Your task to perform on an android device: turn on showing notifications on the lock screen Image 0: 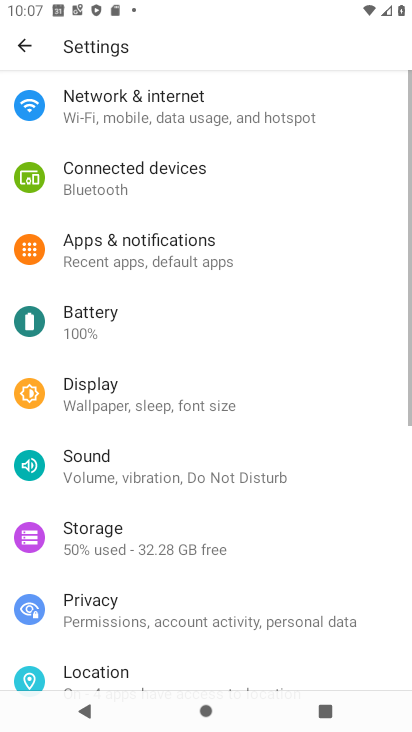
Step 0: press home button
Your task to perform on an android device: turn on showing notifications on the lock screen Image 1: 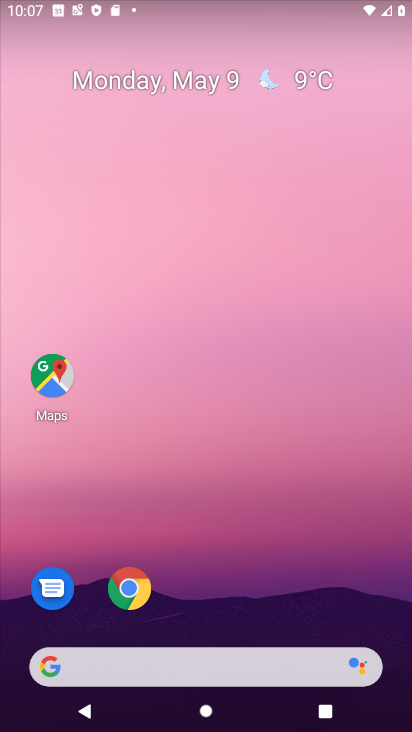
Step 1: drag from (162, 663) to (314, 113)
Your task to perform on an android device: turn on showing notifications on the lock screen Image 2: 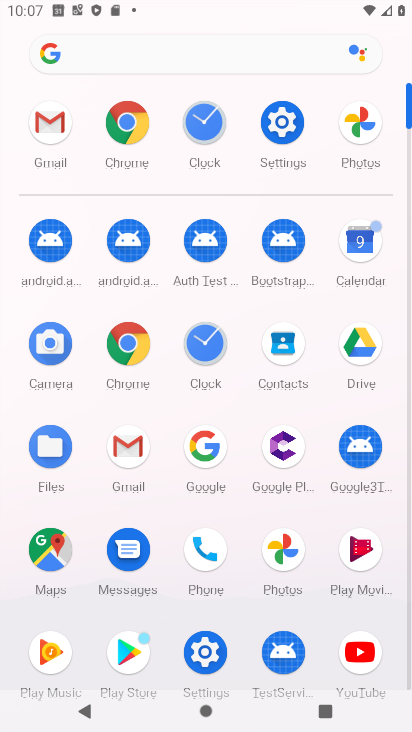
Step 2: click (285, 131)
Your task to perform on an android device: turn on showing notifications on the lock screen Image 3: 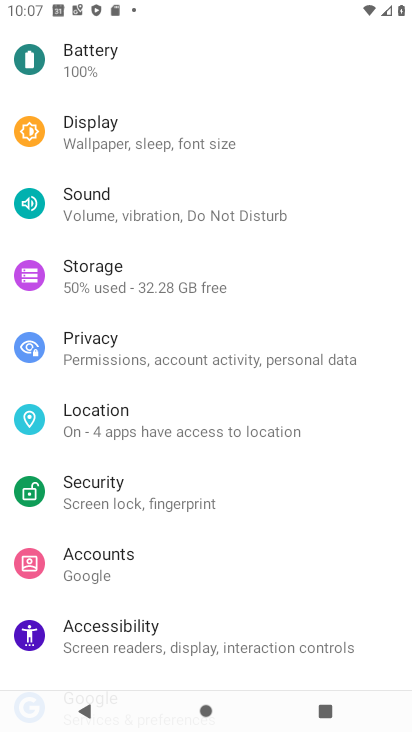
Step 3: drag from (284, 64) to (279, 459)
Your task to perform on an android device: turn on showing notifications on the lock screen Image 4: 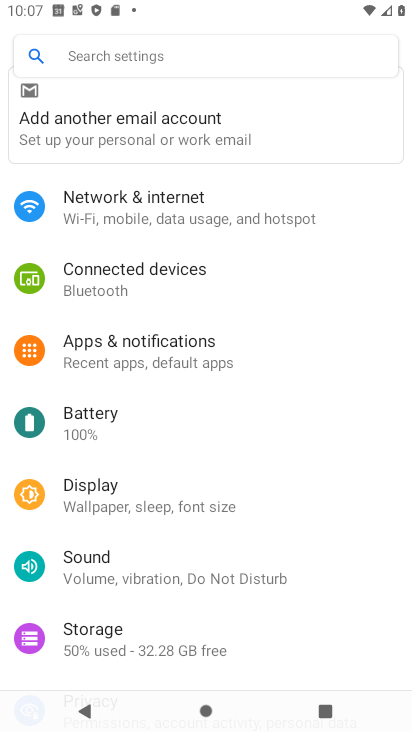
Step 4: click (197, 343)
Your task to perform on an android device: turn on showing notifications on the lock screen Image 5: 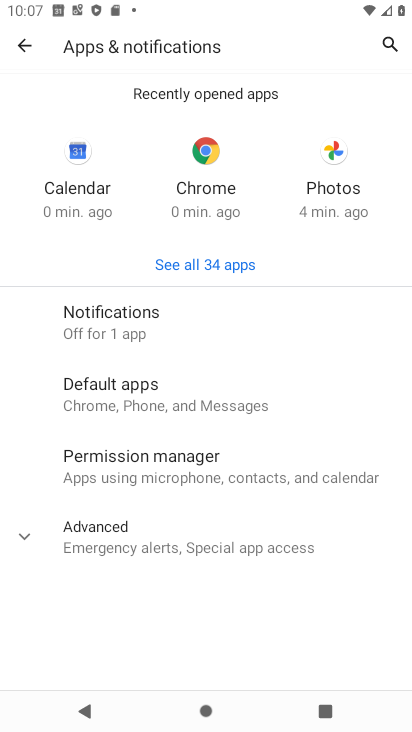
Step 5: click (143, 325)
Your task to perform on an android device: turn on showing notifications on the lock screen Image 6: 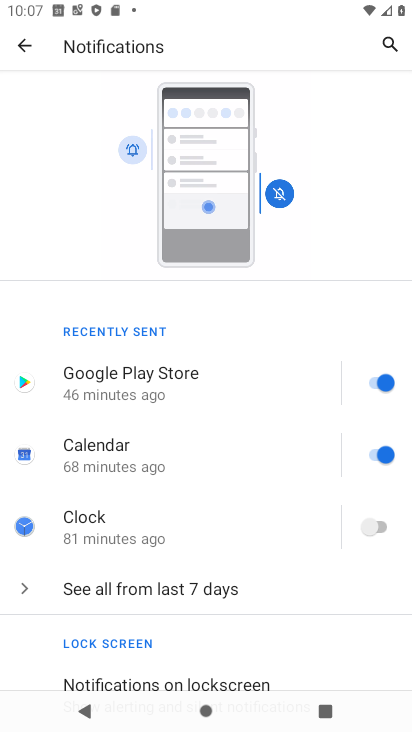
Step 6: drag from (206, 635) to (262, 317)
Your task to perform on an android device: turn on showing notifications on the lock screen Image 7: 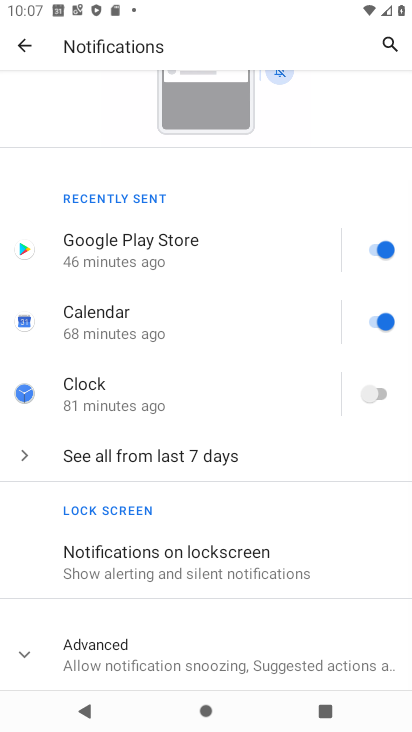
Step 7: click (207, 559)
Your task to perform on an android device: turn on showing notifications on the lock screen Image 8: 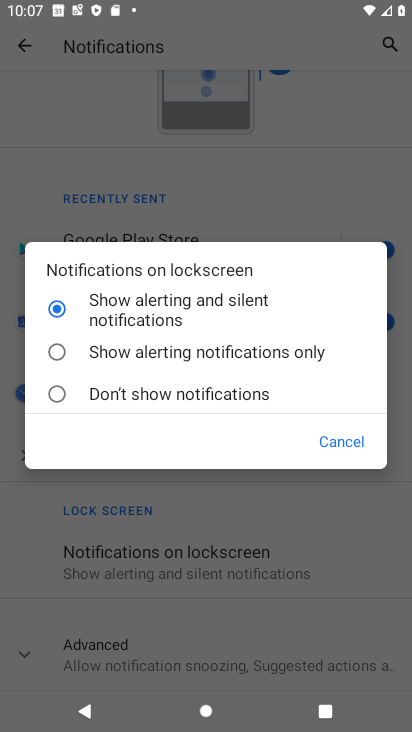
Step 8: task complete